Your task to perform on an android device: delete the emails in spam in the gmail app Image 0: 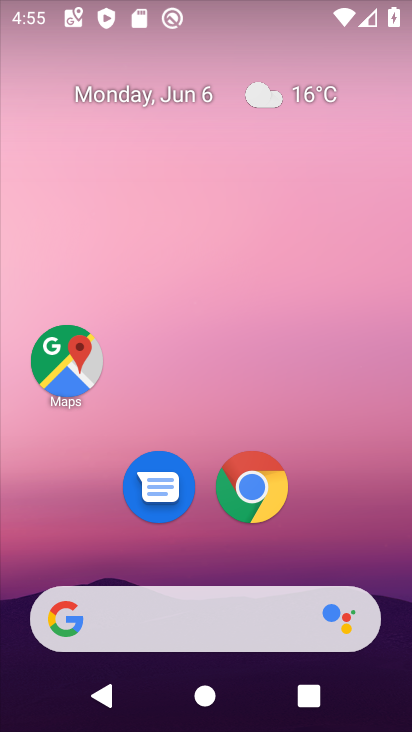
Step 0: drag from (319, 522) to (274, 11)
Your task to perform on an android device: delete the emails in spam in the gmail app Image 1: 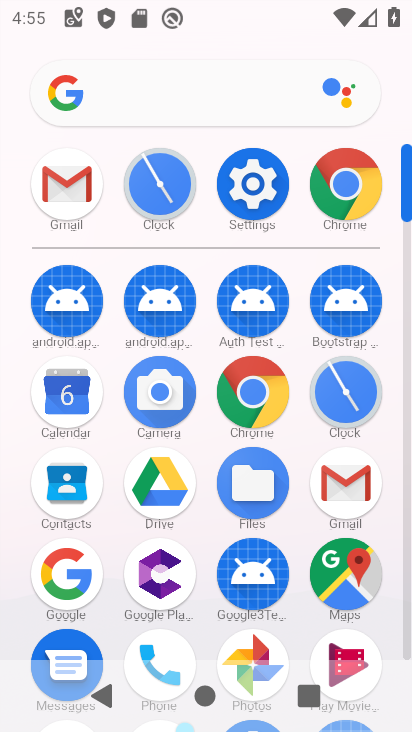
Step 1: click (62, 196)
Your task to perform on an android device: delete the emails in spam in the gmail app Image 2: 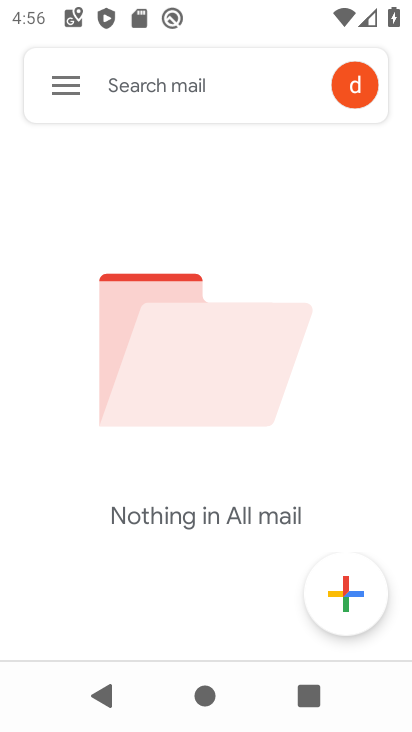
Step 2: click (68, 90)
Your task to perform on an android device: delete the emails in spam in the gmail app Image 3: 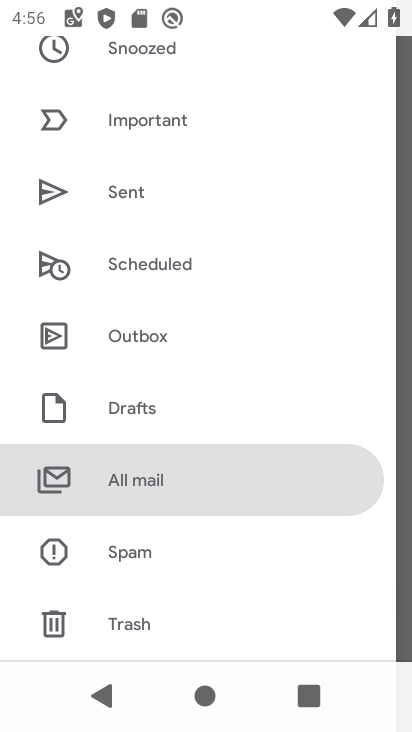
Step 3: click (127, 547)
Your task to perform on an android device: delete the emails in spam in the gmail app Image 4: 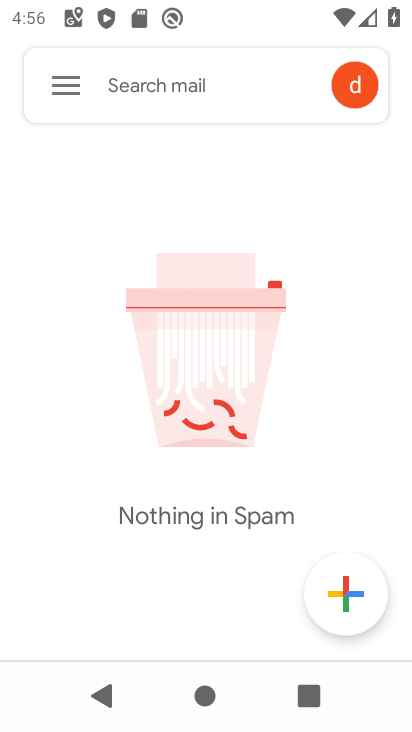
Step 4: task complete